Your task to perform on an android device: Search for Italian restaurants on Maps Image 0: 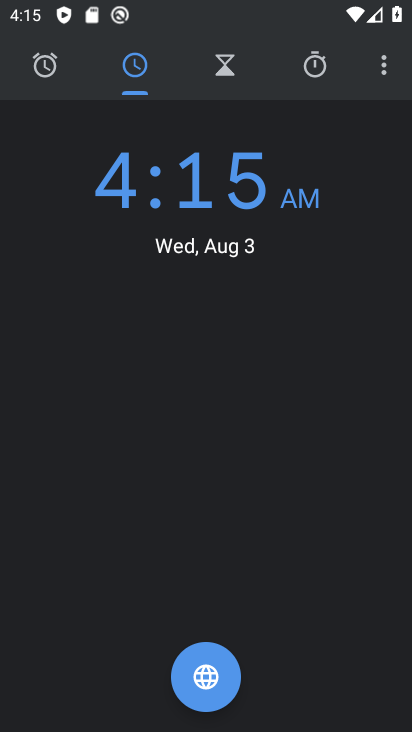
Step 0: press home button
Your task to perform on an android device: Search for Italian restaurants on Maps Image 1: 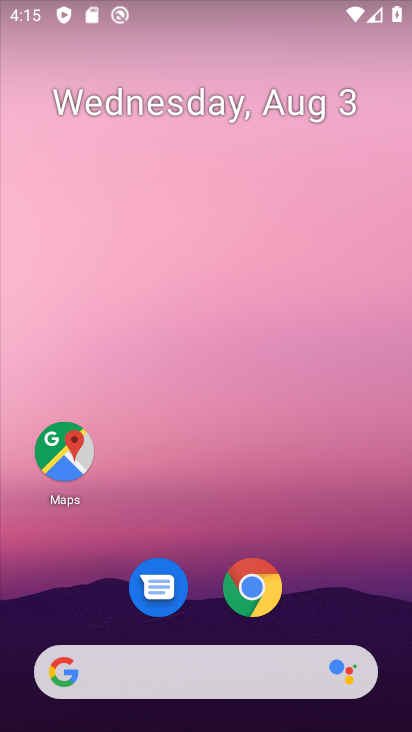
Step 1: click (63, 459)
Your task to perform on an android device: Search for Italian restaurants on Maps Image 2: 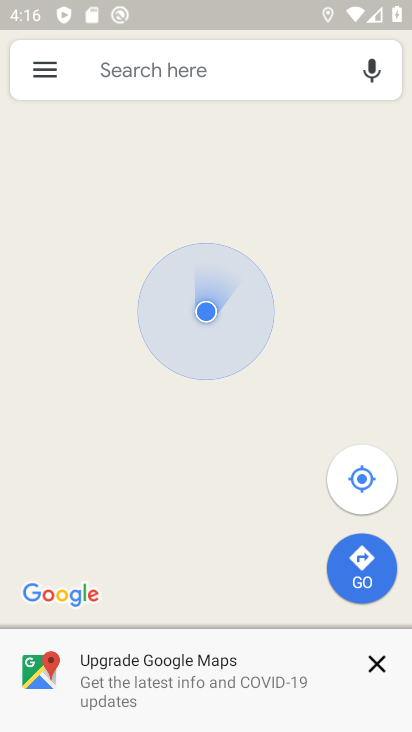
Step 2: click (123, 69)
Your task to perform on an android device: Search for Italian restaurants on Maps Image 3: 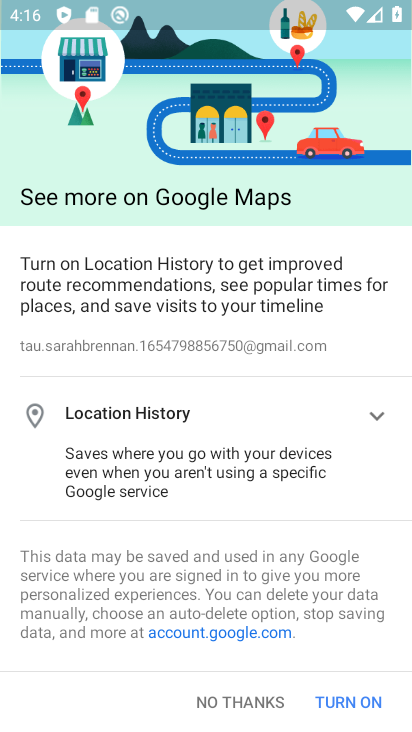
Step 3: click (340, 705)
Your task to perform on an android device: Search for Italian restaurants on Maps Image 4: 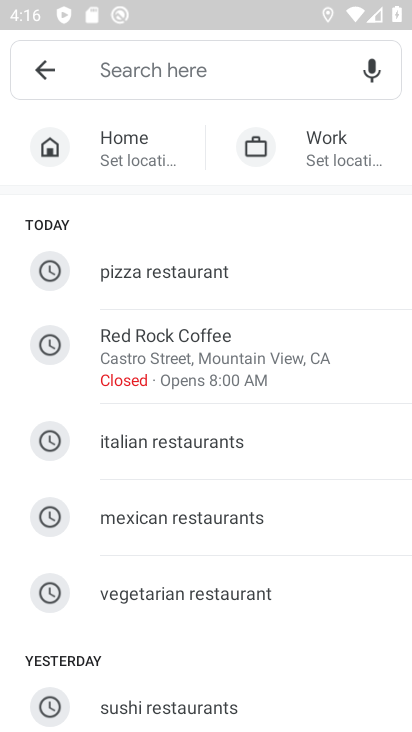
Step 4: click (41, 63)
Your task to perform on an android device: Search for Italian restaurants on Maps Image 5: 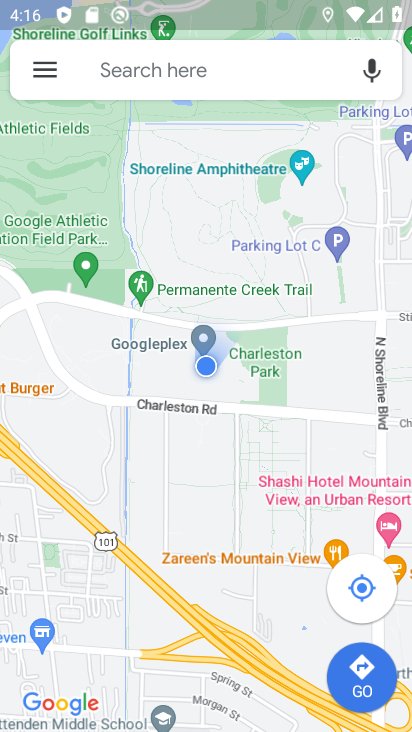
Step 5: click (126, 69)
Your task to perform on an android device: Search for Italian restaurants on Maps Image 6: 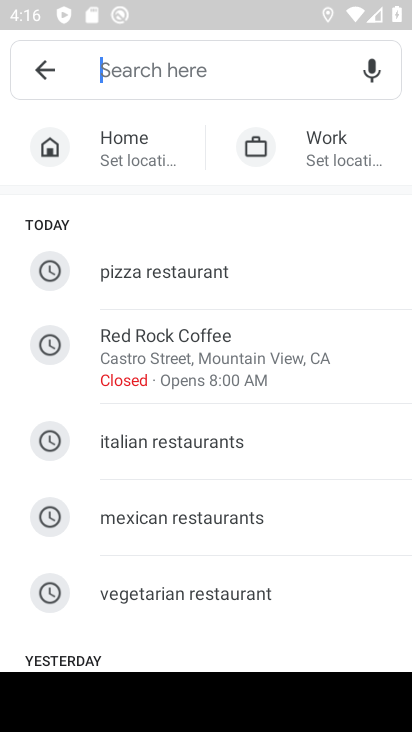
Step 6: type "Italian restaurants"
Your task to perform on an android device: Search for Italian restaurants on Maps Image 7: 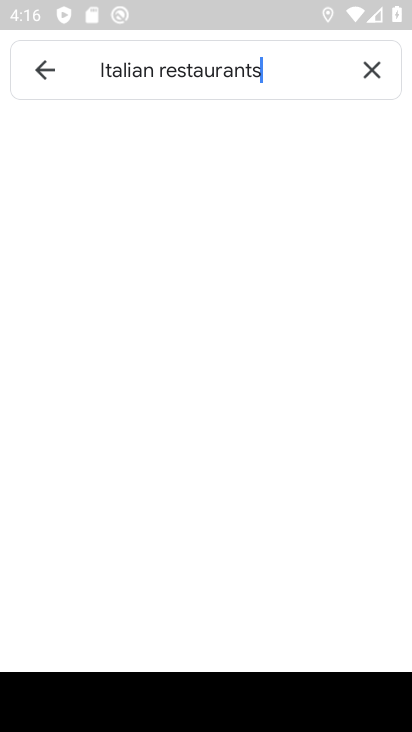
Step 7: type ""
Your task to perform on an android device: Search for Italian restaurants on Maps Image 8: 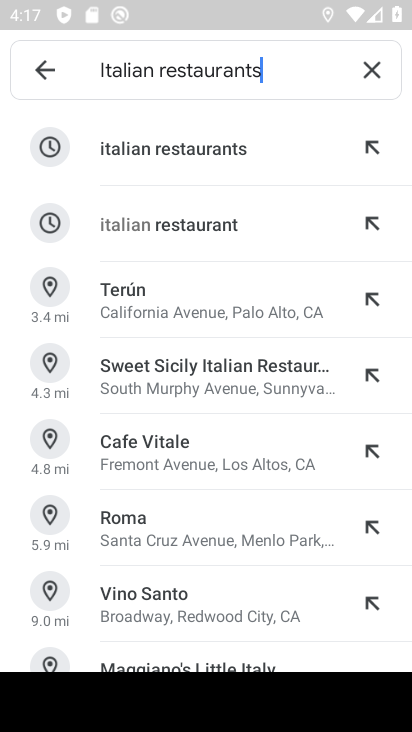
Step 8: task complete